Your task to perform on an android device: Open maps Image 0: 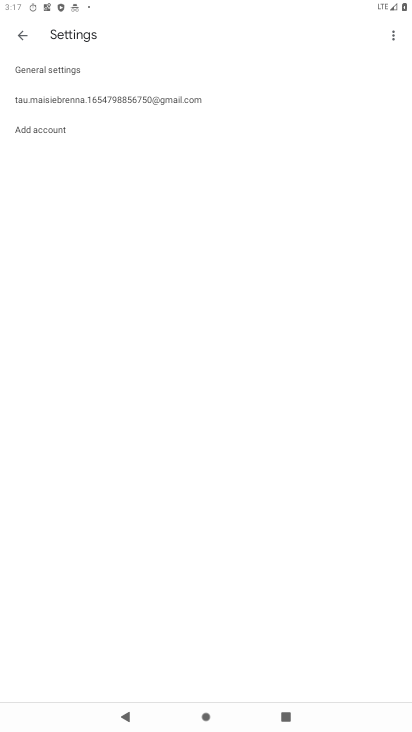
Step 0: press back button
Your task to perform on an android device: Open maps Image 1: 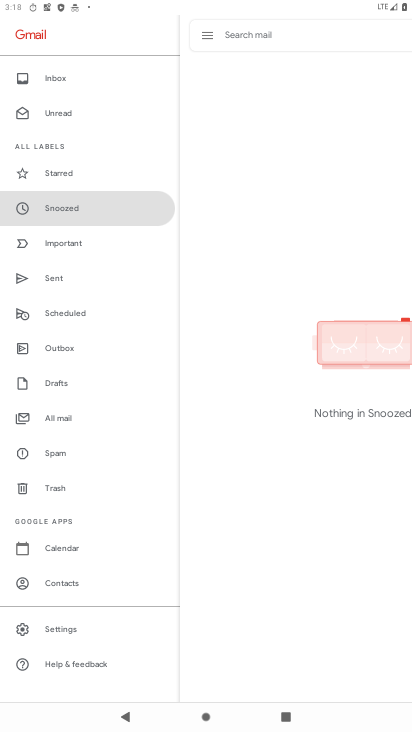
Step 1: press home button
Your task to perform on an android device: Open maps Image 2: 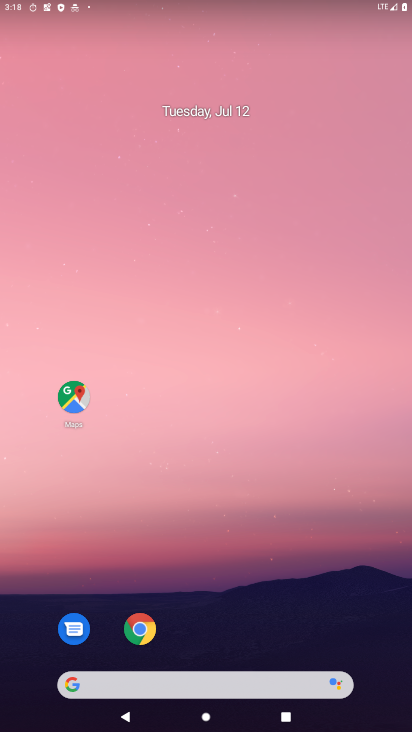
Step 2: drag from (283, 646) to (295, 96)
Your task to perform on an android device: Open maps Image 3: 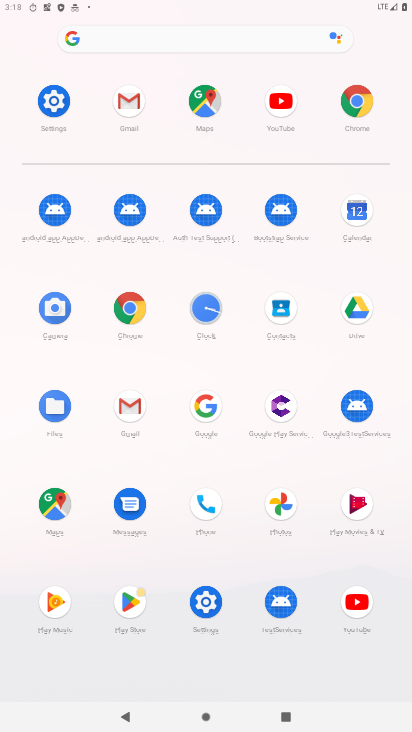
Step 3: click (34, 495)
Your task to perform on an android device: Open maps Image 4: 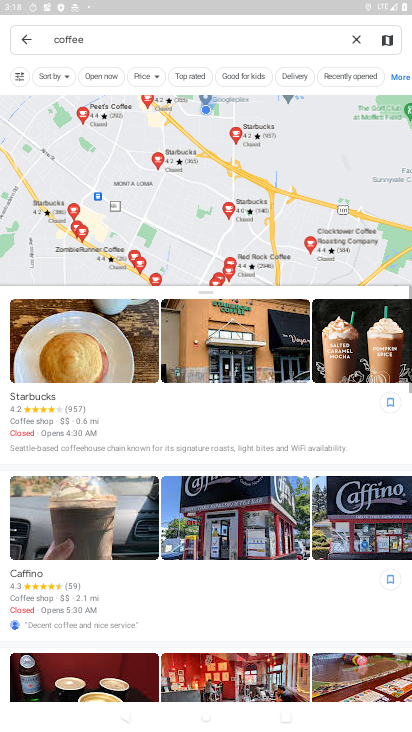
Step 4: click (21, 39)
Your task to perform on an android device: Open maps Image 5: 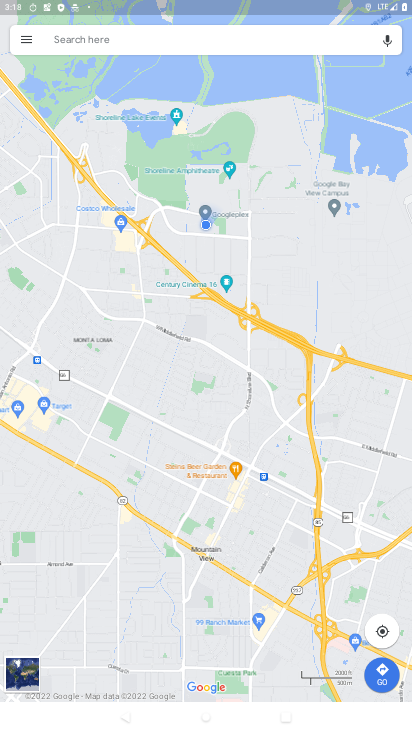
Step 5: task complete